Your task to perform on an android device: When is my next appointment? Image 0: 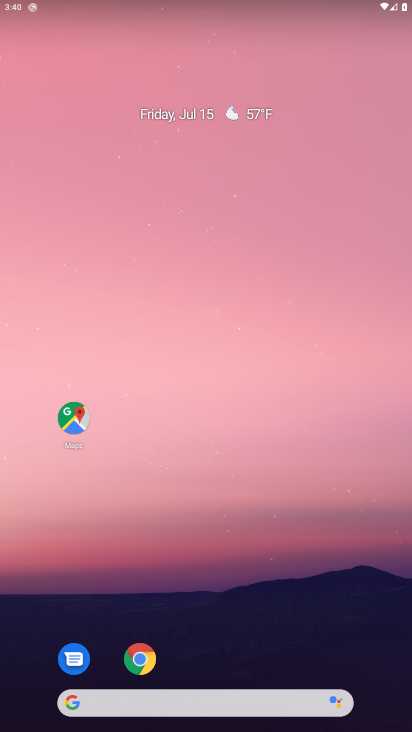
Step 0: drag from (28, 687) to (309, 214)
Your task to perform on an android device: When is my next appointment? Image 1: 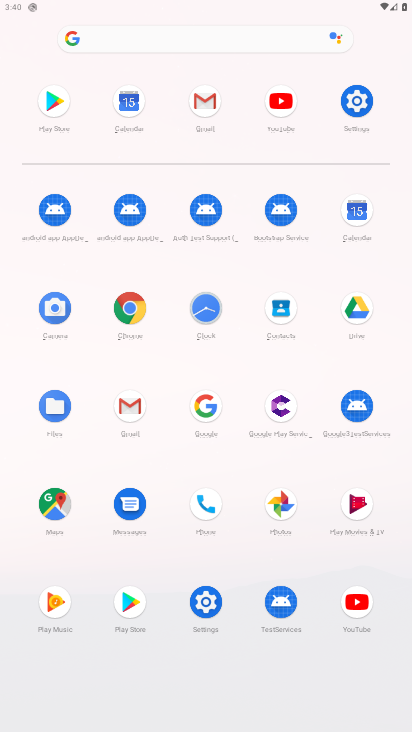
Step 1: click (361, 219)
Your task to perform on an android device: When is my next appointment? Image 2: 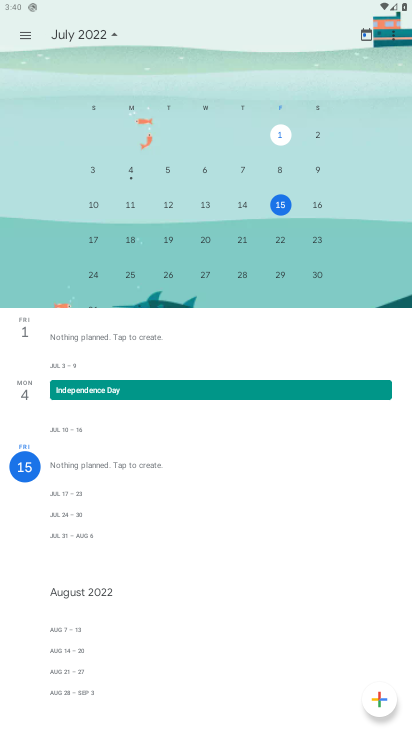
Step 2: task complete